Your task to perform on an android device: Clear the shopping cart on amazon.com. Add asus rog to the cart on amazon.com Image 0: 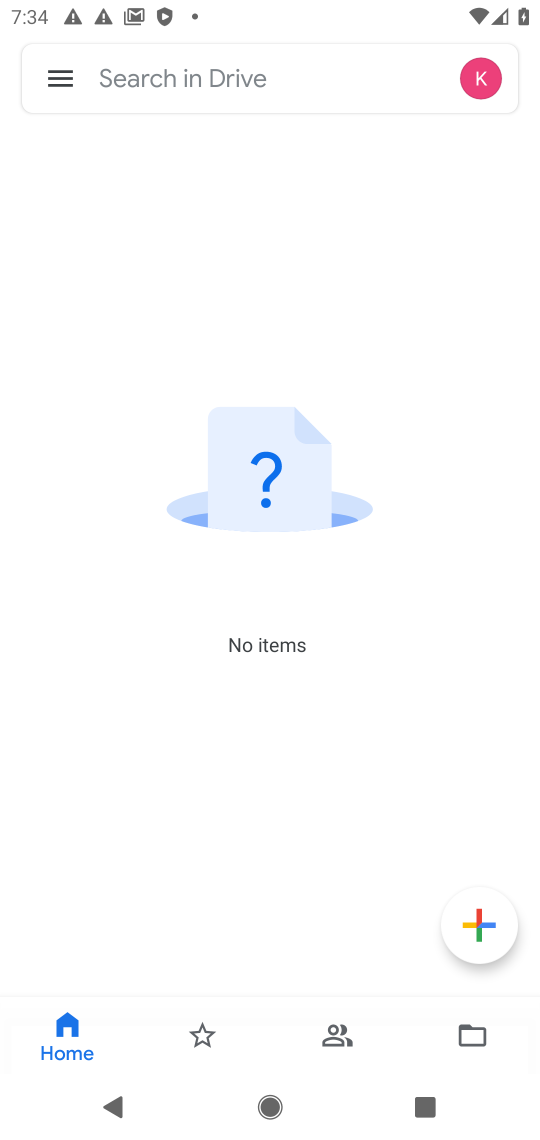
Step 0: press home button
Your task to perform on an android device: Clear the shopping cart on amazon.com. Add asus rog to the cart on amazon.com Image 1: 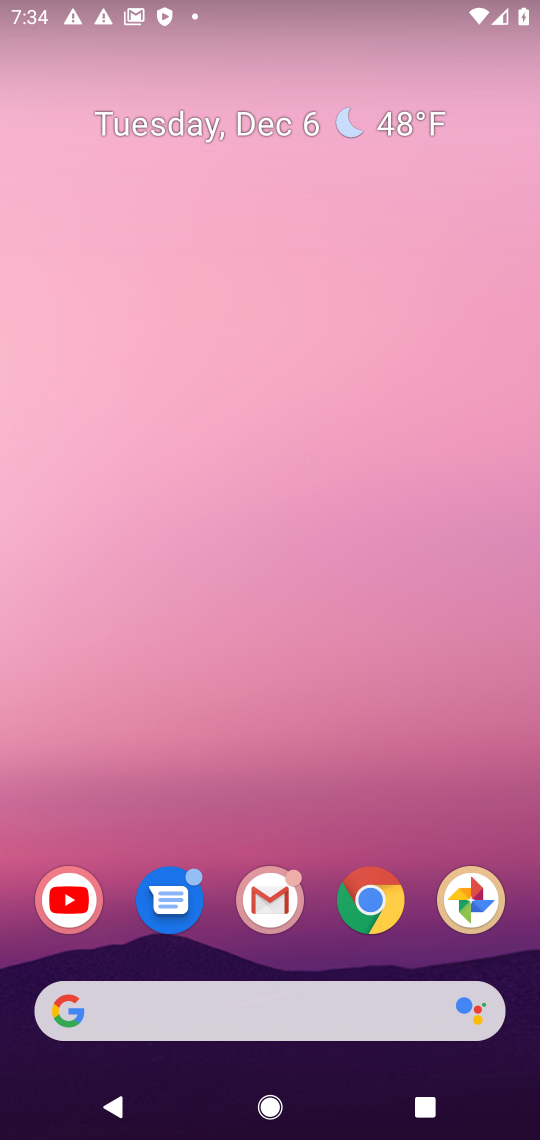
Step 1: drag from (164, 990) to (208, 337)
Your task to perform on an android device: Clear the shopping cart on amazon.com. Add asus rog to the cart on amazon.com Image 2: 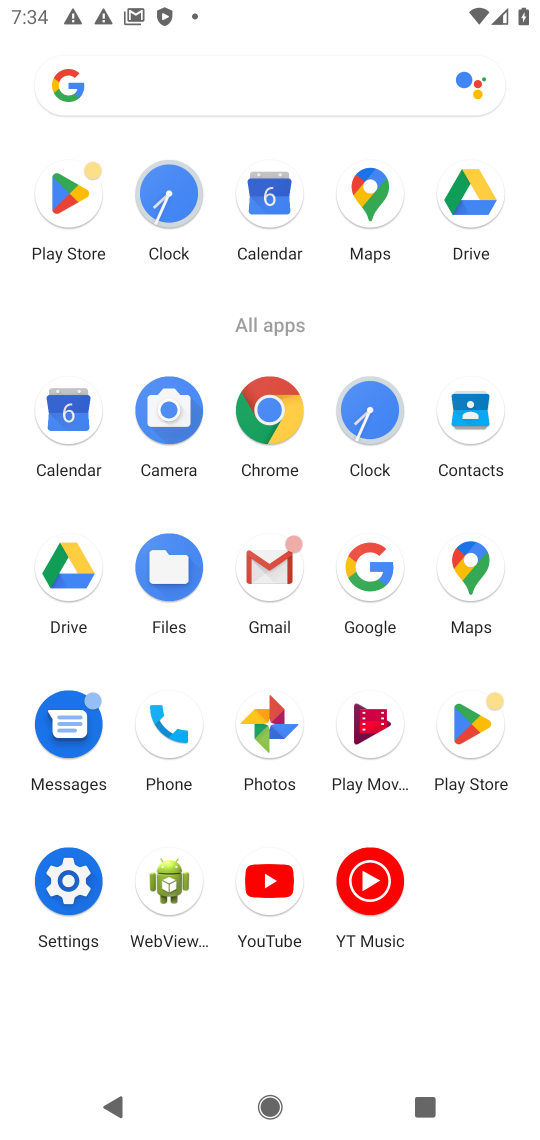
Step 2: click (367, 565)
Your task to perform on an android device: Clear the shopping cart on amazon.com. Add asus rog to the cart on amazon.com Image 3: 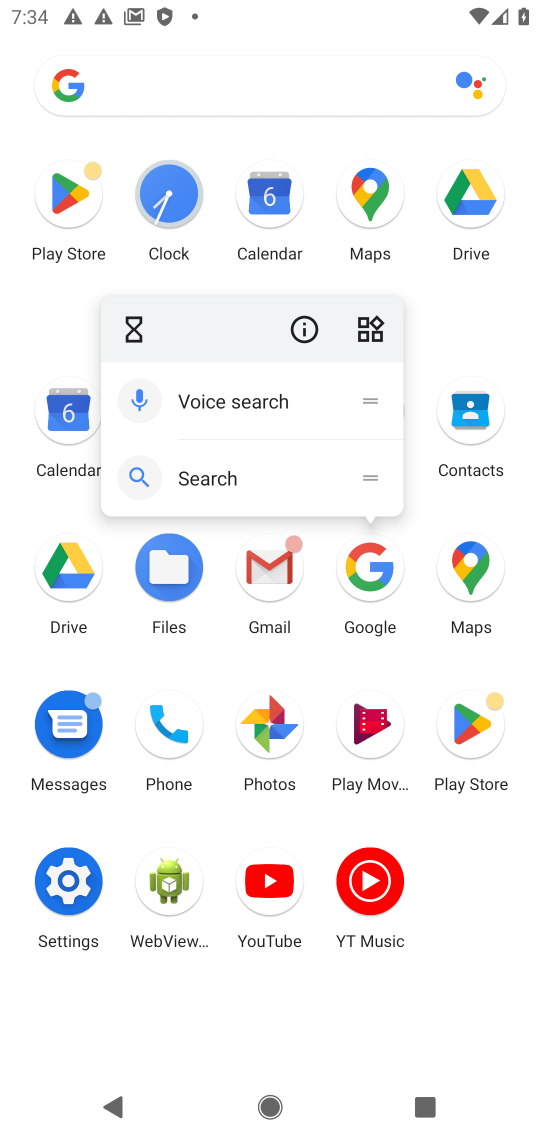
Step 3: click (368, 594)
Your task to perform on an android device: Clear the shopping cart on amazon.com. Add asus rog to the cart on amazon.com Image 4: 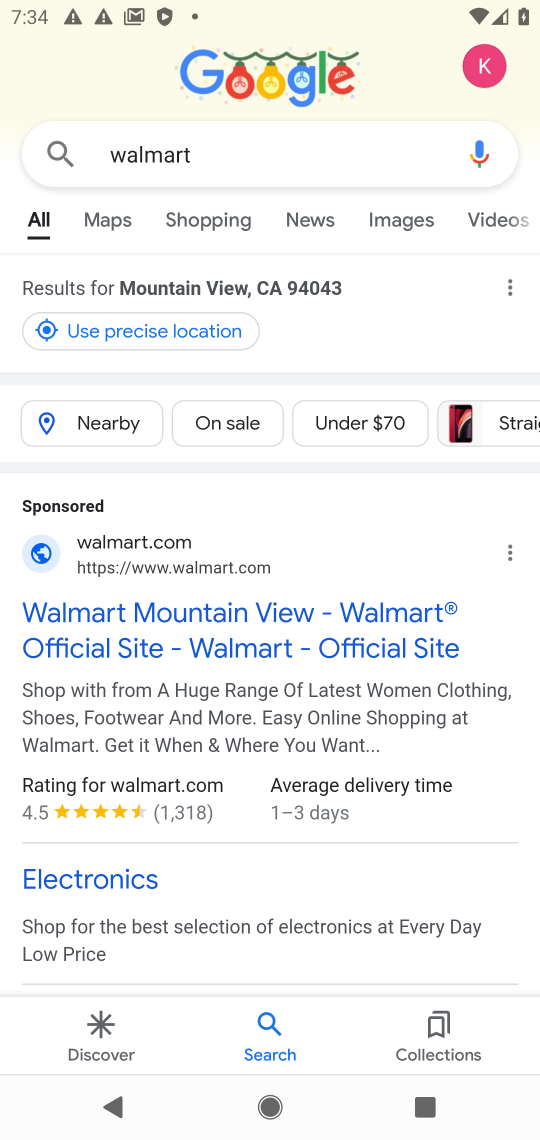
Step 4: click (173, 159)
Your task to perform on an android device: Clear the shopping cart on amazon.com. Add asus rog to the cart on amazon.com Image 5: 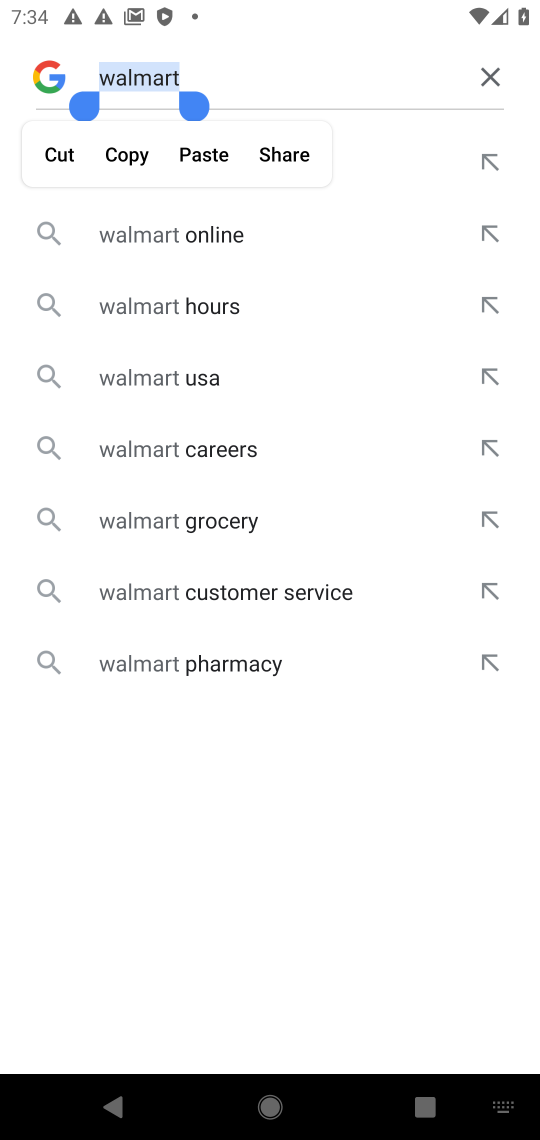
Step 5: click (486, 80)
Your task to perform on an android device: Clear the shopping cart on amazon.com. Add asus rog to the cart on amazon.com Image 6: 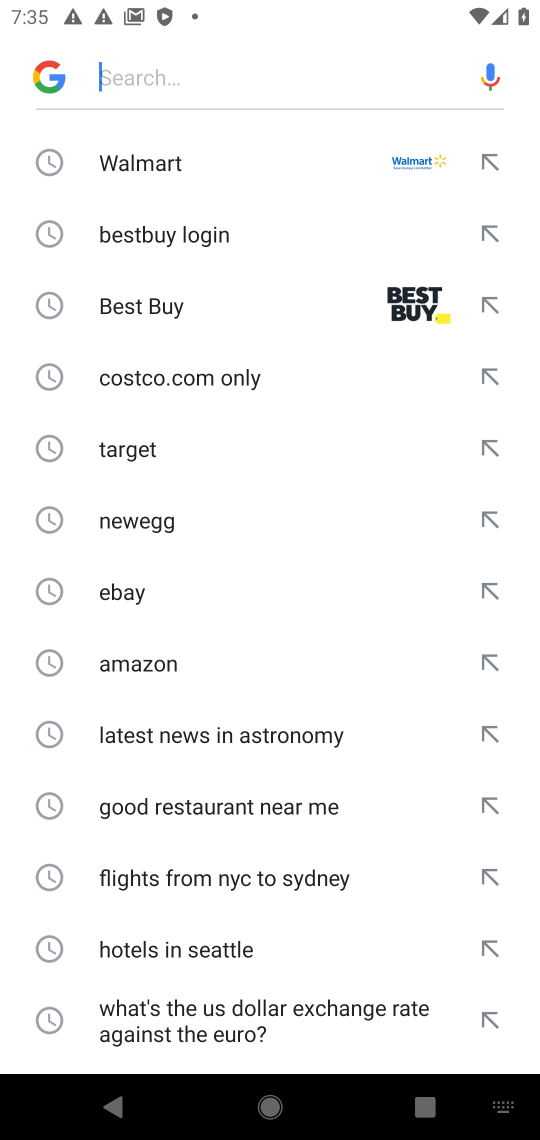
Step 6: click (489, 657)
Your task to perform on an android device: Clear the shopping cart on amazon.com. Add asus rog to the cart on amazon.com Image 7: 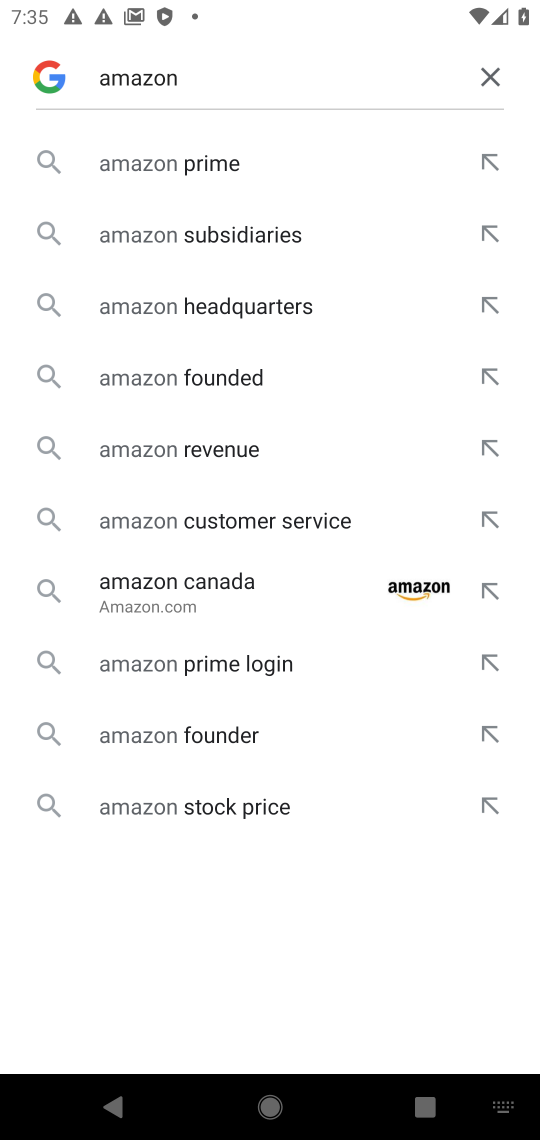
Step 7: click (401, 586)
Your task to perform on an android device: Clear the shopping cart on amazon.com. Add asus rog to the cart on amazon.com Image 8: 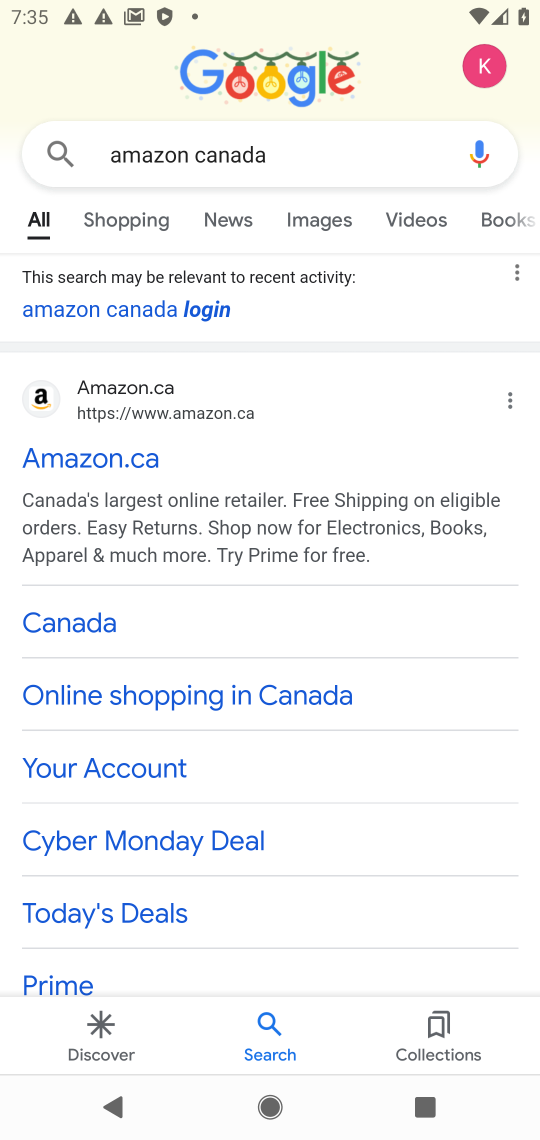
Step 8: click (117, 462)
Your task to perform on an android device: Clear the shopping cart on amazon.com. Add asus rog to the cart on amazon.com Image 9: 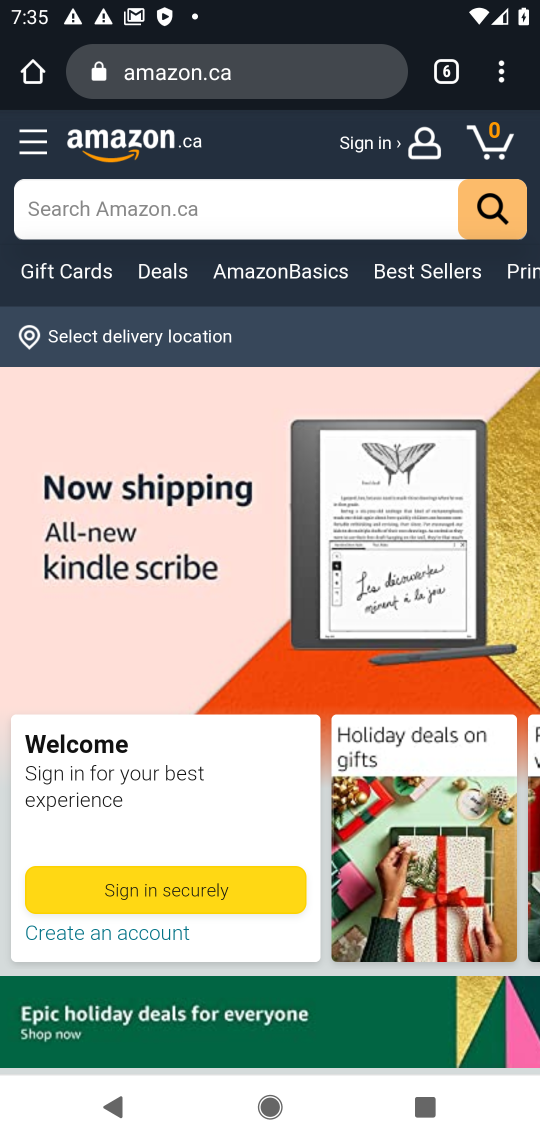
Step 9: click (208, 212)
Your task to perform on an android device: Clear the shopping cart on amazon.com. Add asus rog to the cart on amazon.com Image 10: 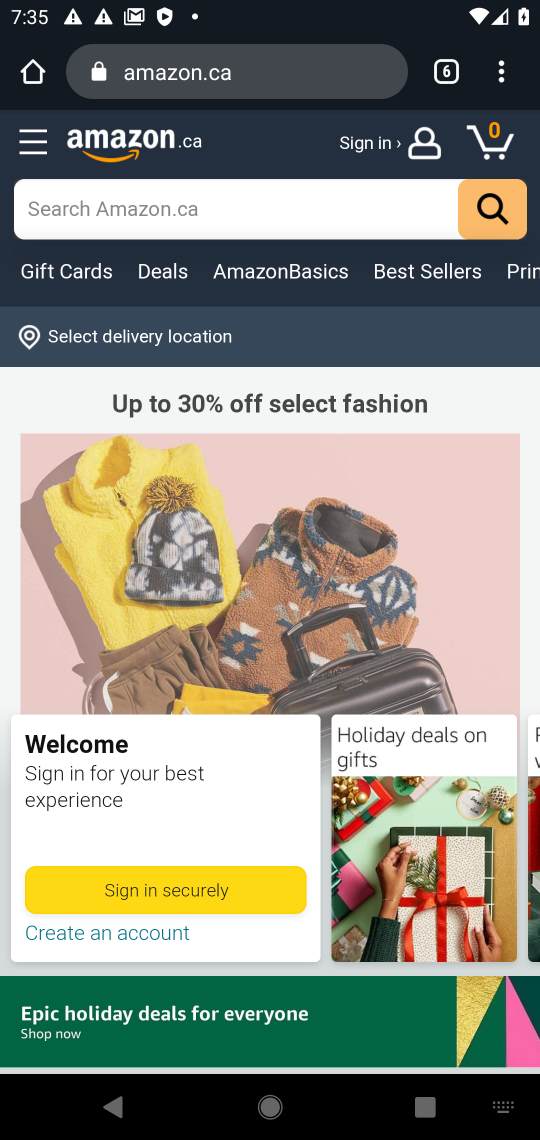
Step 10: type "asus rog"
Your task to perform on an android device: Clear the shopping cart on amazon.com. Add asus rog to the cart on amazon.com Image 11: 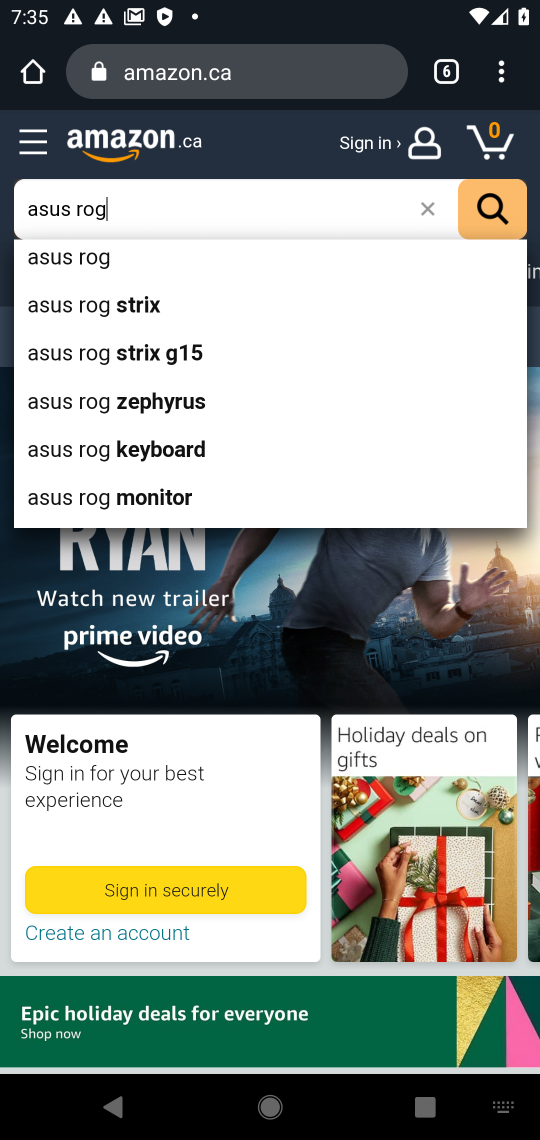
Step 11: click (95, 262)
Your task to perform on an android device: Clear the shopping cart on amazon.com. Add asus rog to the cart on amazon.com Image 12: 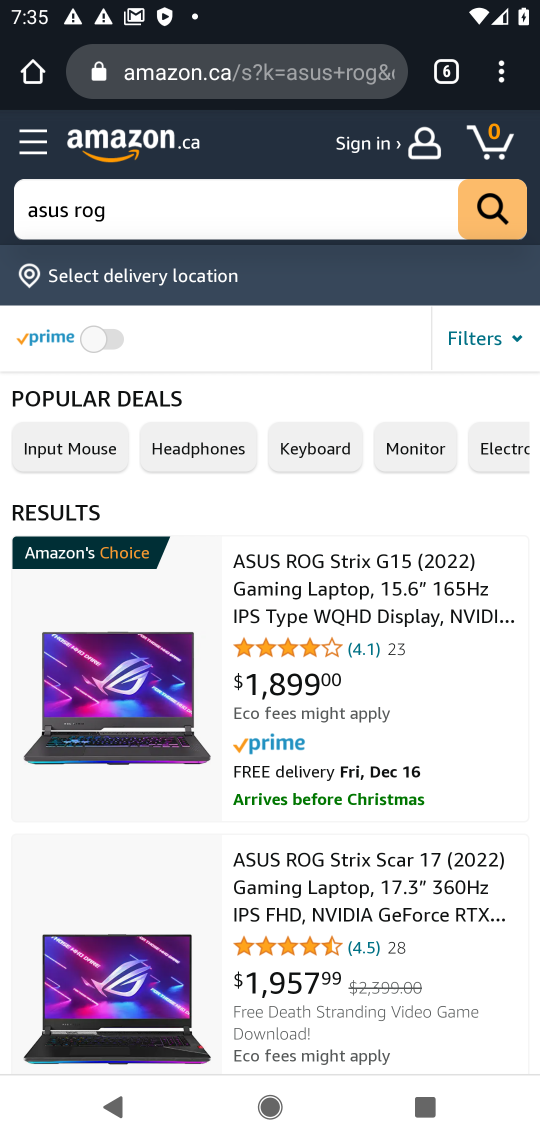
Step 12: click (273, 592)
Your task to perform on an android device: Clear the shopping cart on amazon.com. Add asus rog to the cart on amazon.com Image 13: 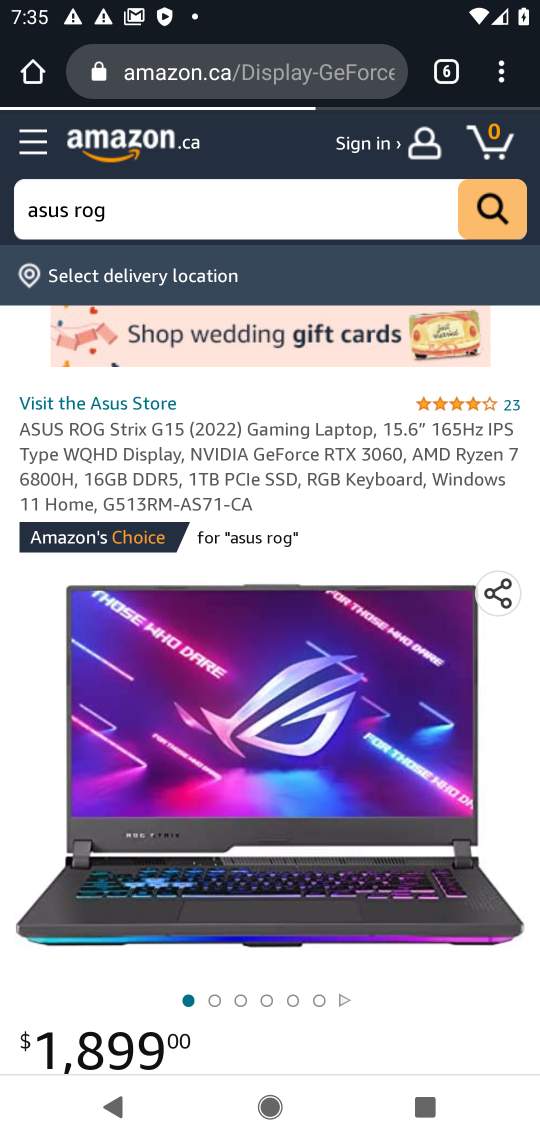
Step 13: drag from (248, 1016) to (246, 408)
Your task to perform on an android device: Clear the shopping cart on amazon.com. Add asus rog to the cart on amazon.com Image 14: 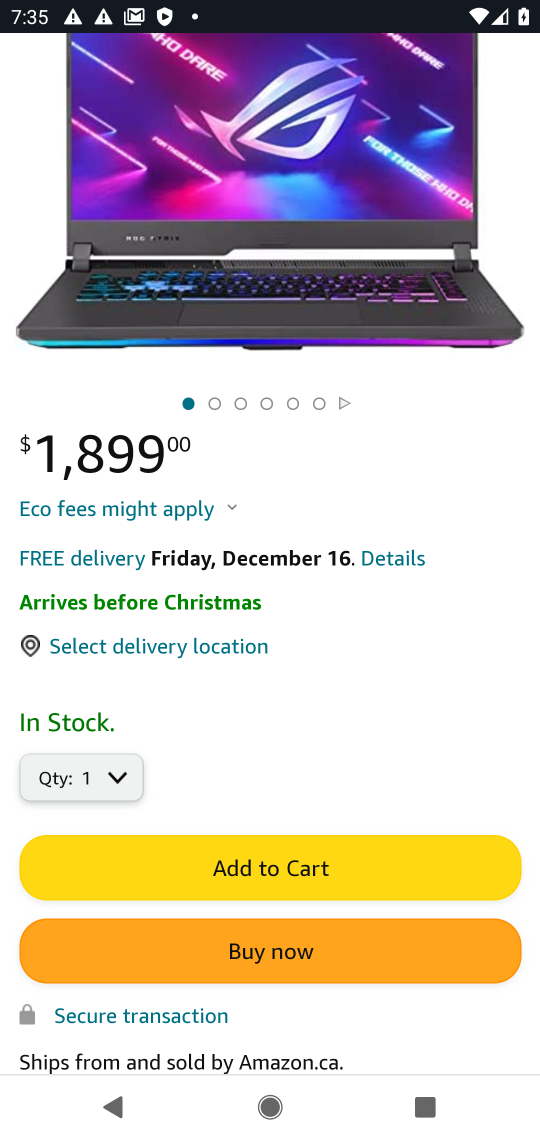
Step 14: click (281, 857)
Your task to perform on an android device: Clear the shopping cart on amazon.com. Add asus rog to the cart on amazon.com Image 15: 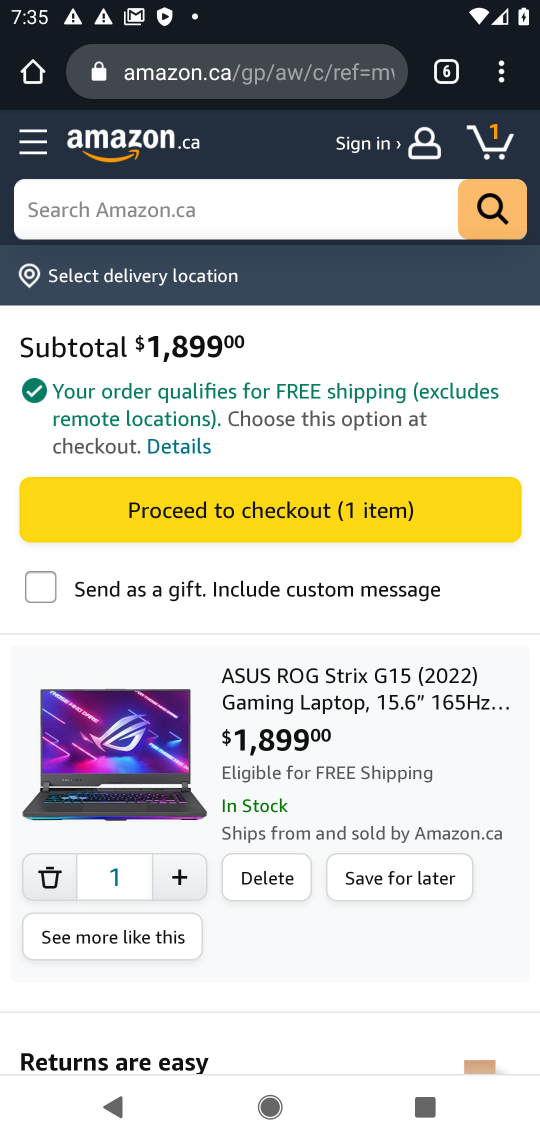
Step 15: task complete